Your task to perform on an android device: toggle notification dots Image 0: 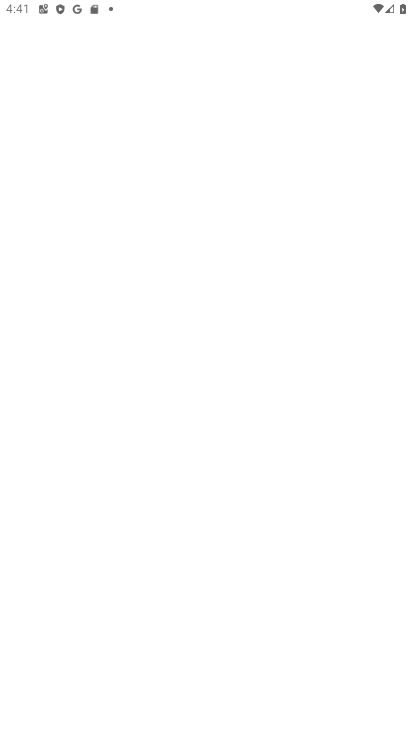
Step 0: click (210, 135)
Your task to perform on an android device: toggle notification dots Image 1: 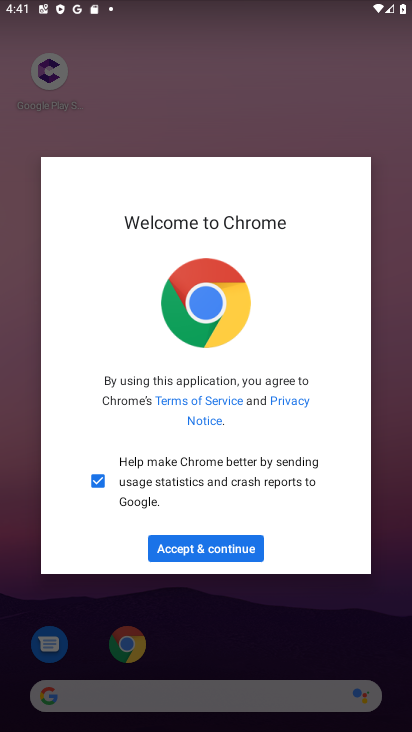
Step 1: press home button
Your task to perform on an android device: toggle notification dots Image 2: 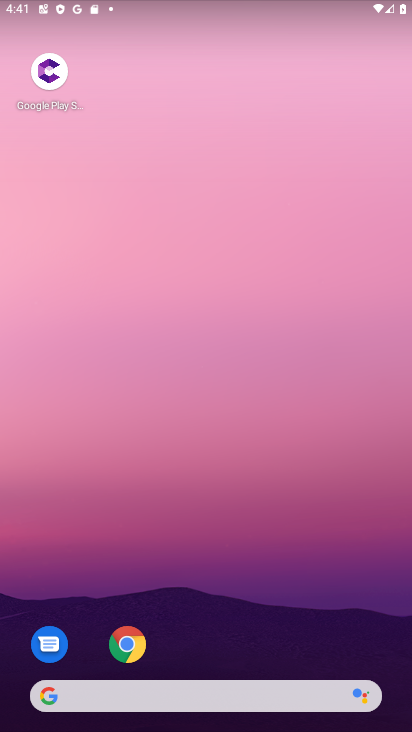
Step 2: drag from (214, 555) to (233, 162)
Your task to perform on an android device: toggle notification dots Image 3: 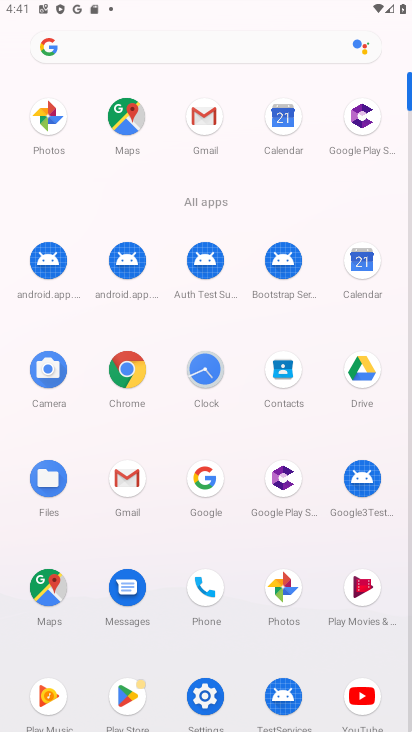
Step 3: click (209, 692)
Your task to perform on an android device: toggle notification dots Image 4: 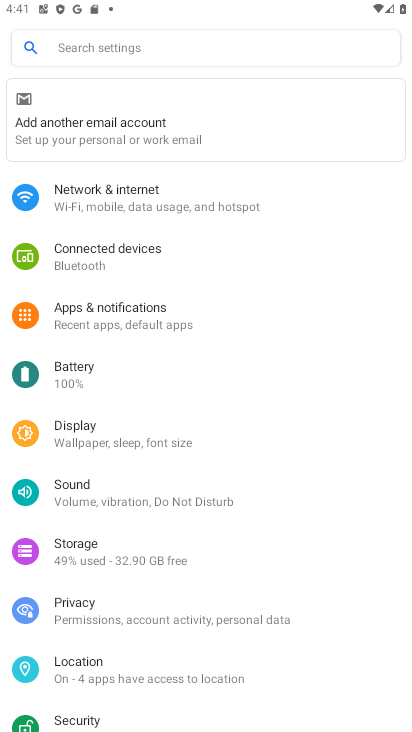
Step 4: click (85, 308)
Your task to perform on an android device: toggle notification dots Image 5: 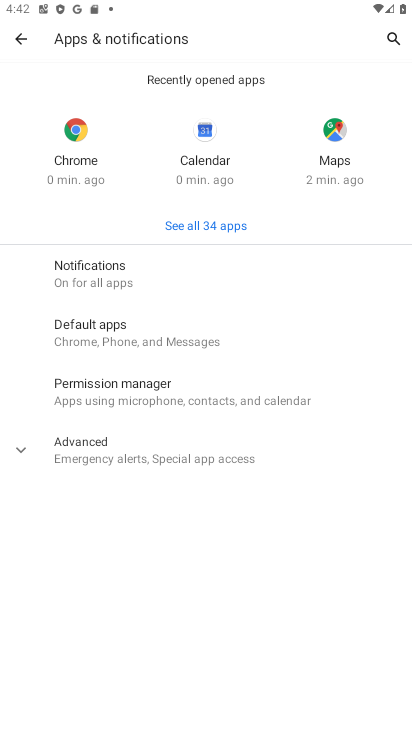
Step 5: click (105, 279)
Your task to perform on an android device: toggle notification dots Image 6: 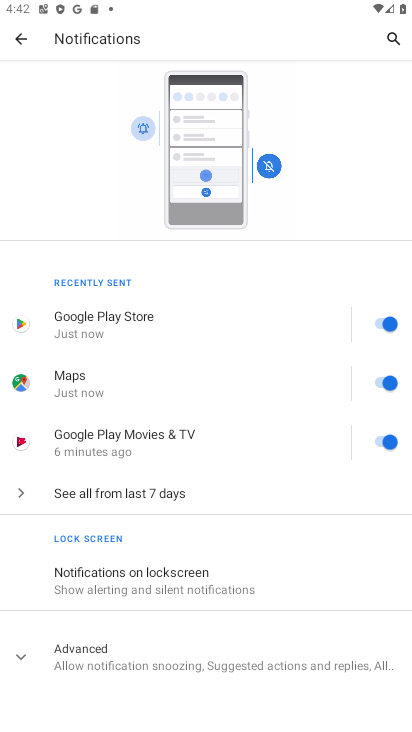
Step 6: click (104, 652)
Your task to perform on an android device: toggle notification dots Image 7: 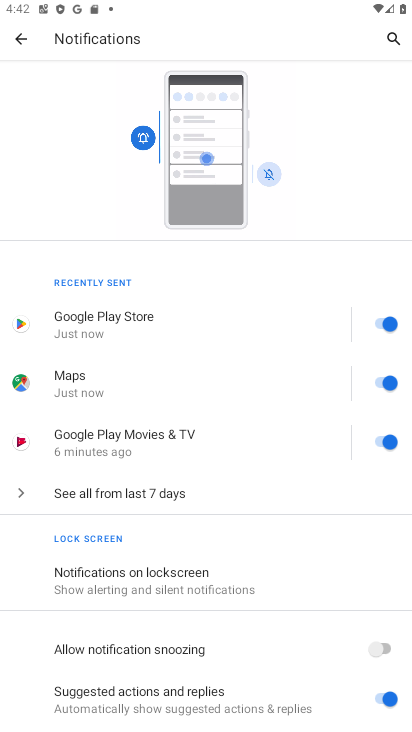
Step 7: click (134, 266)
Your task to perform on an android device: toggle notification dots Image 8: 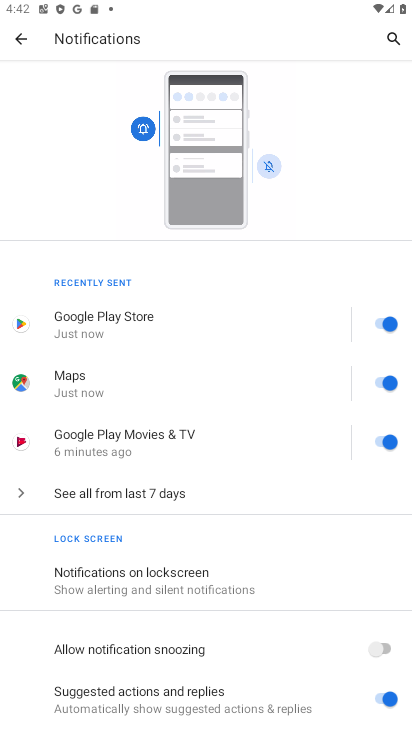
Step 8: drag from (194, 635) to (213, 445)
Your task to perform on an android device: toggle notification dots Image 9: 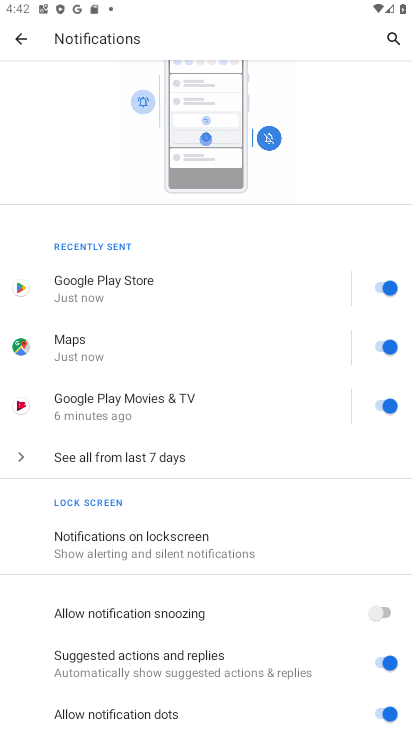
Step 9: click (378, 714)
Your task to perform on an android device: toggle notification dots Image 10: 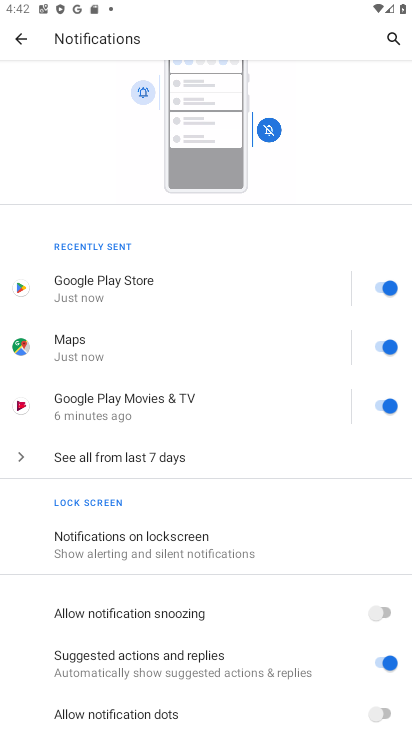
Step 10: task complete